Your task to perform on an android device: Find coffee shops on Maps Image 0: 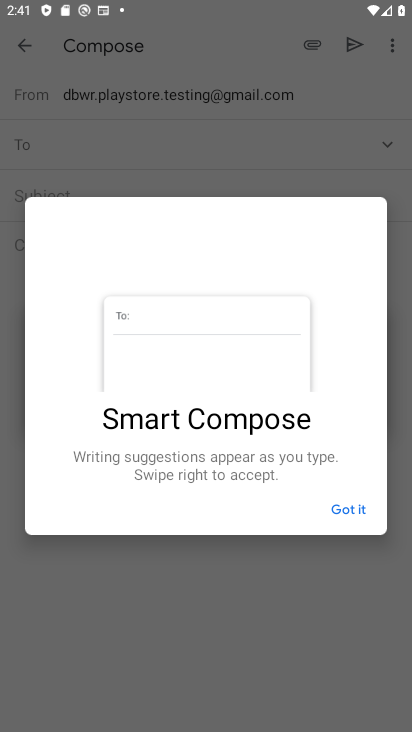
Step 0: press home button
Your task to perform on an android device: Find coffee shops on Maps Image 1: 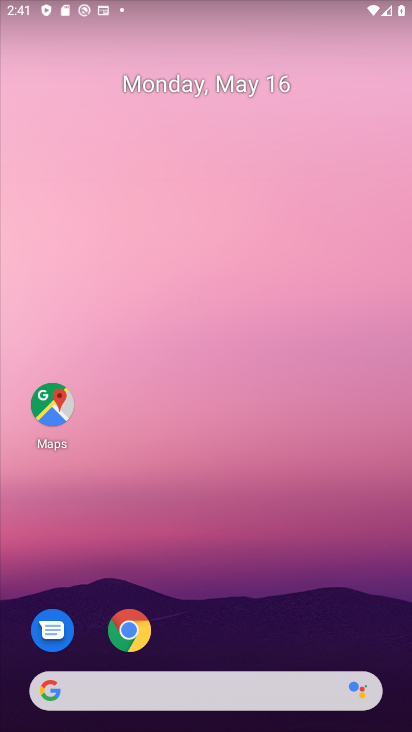
Step 1: drag from (212, 641) to (0, 60)
Your task to perform on an android device: Find coffee shops on Maps Image 2: 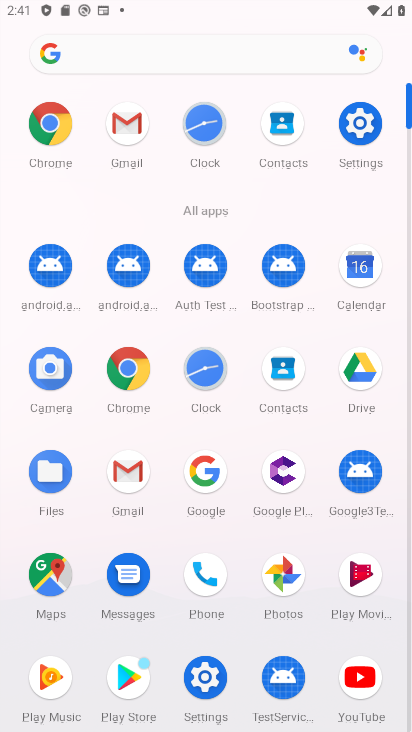
Step 2: click (50, 570)
Your task to perform on an android device: Find coffee shops on Maps Image 3: 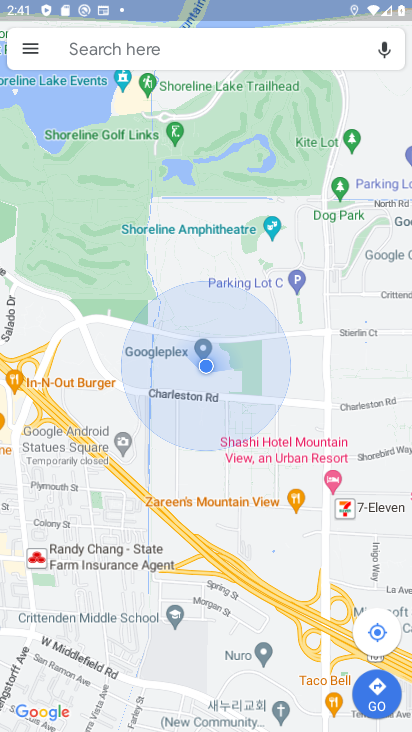
Step 3: click (110, 56)
Your task to perform on an android device: Find coffee shops on Maps Image 4: 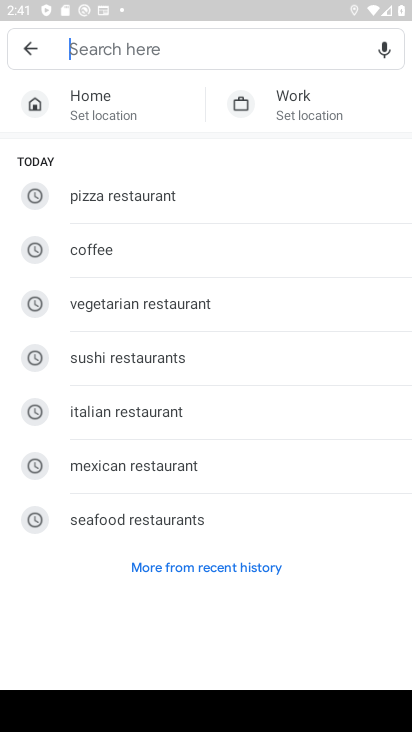
Step 4: click (101, 249)
Your task to perform on an android device: Find coffee shops on Maps Image 5: 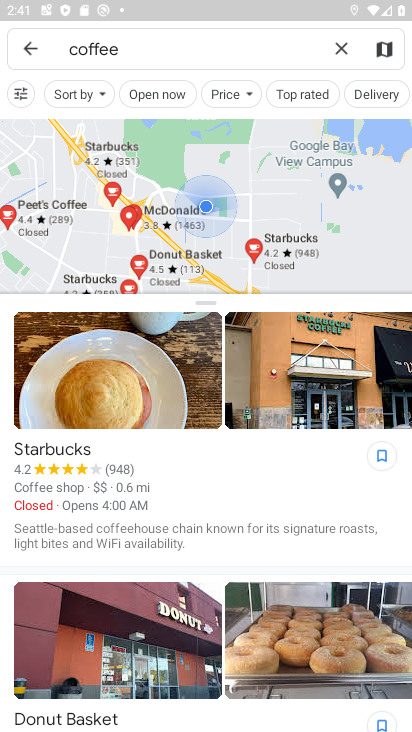
Step 5: task complete